Your task to perform on an android device: Go to Maps Image 0: 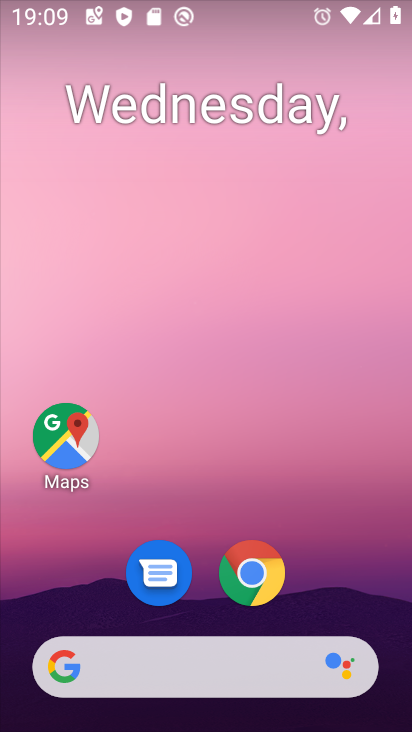
Step 0: click (65, 434)
Your task to perform on an android device: Go to Maps Image 1: 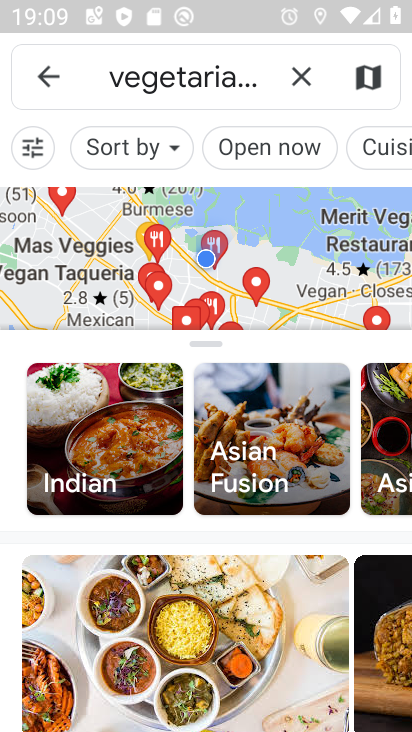
Step 1: task complete